Your task to perform on an android device: Do I have any events this weekend? Image 0: 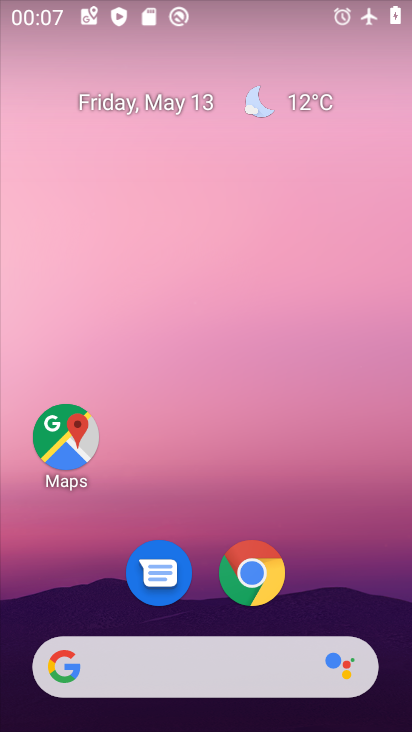
Step 0: drag from (229, 532) to (333, 61)
Your task to perform on an android device: Do I have any events this weekend? Image 1: 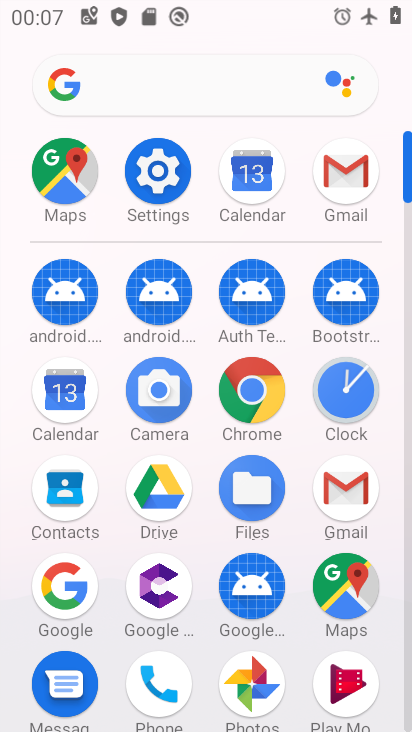
Step 1: click (259, 180)
Your task to perform on an android device: Do I have any events this weekend? Image 2: 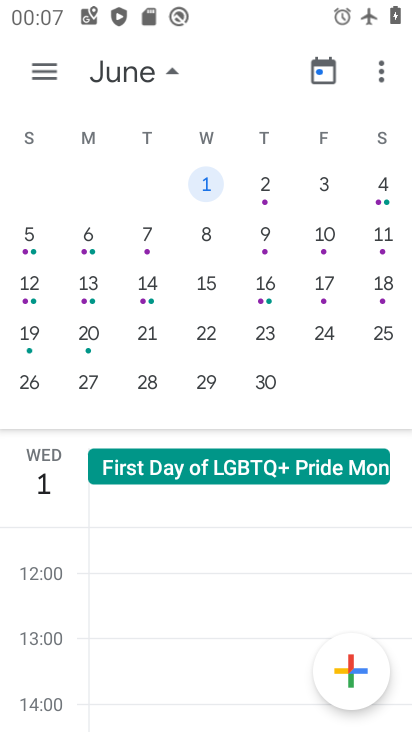
Step 2: task complete